Your task to perform on an android device: Open settings on Google Maps Image 0: 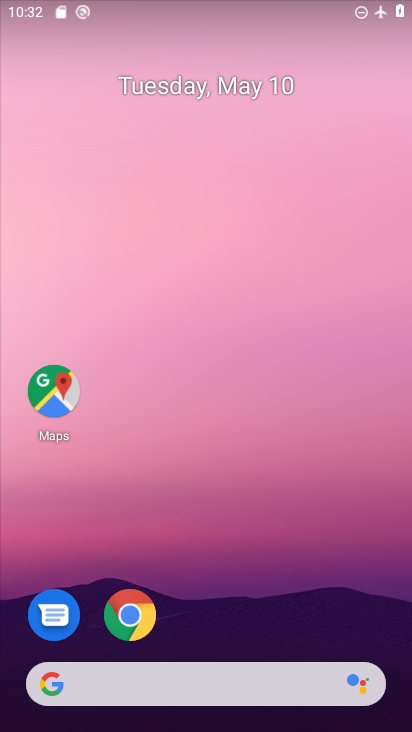
Step 0: drag from (236, 554) to (340, 121)
Your task to perform on an android device: Open settings on Google Maps Image 1: 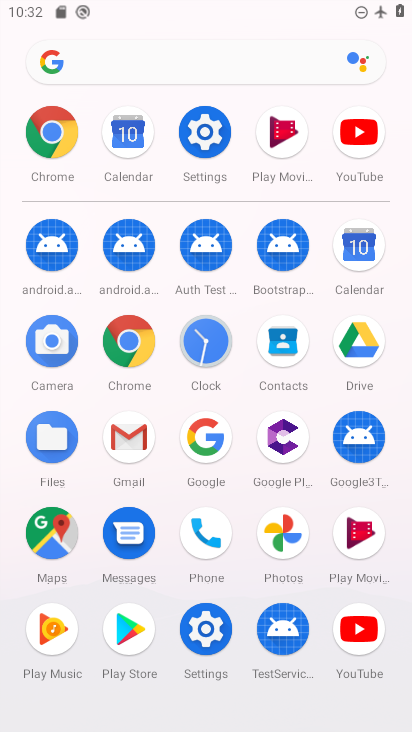
Step 1: click (47, 526)
Your task to perform on an android device: Open settings on Google Maps Image 2: 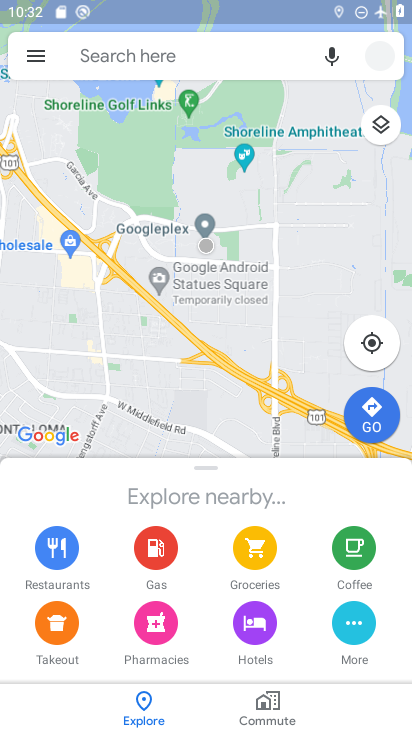
Step 2: drag from (160, 597) to (210, 333)
Your task to perform on an android device: Open settings on Google Maps Image 3: 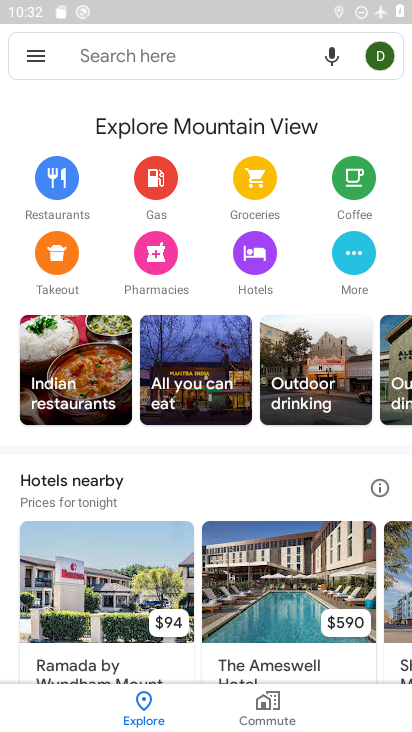
Step 3: drag from (226, 506) to (275, 231)
Your task to perform on an android device: Open settings on Google Maps Image 4: 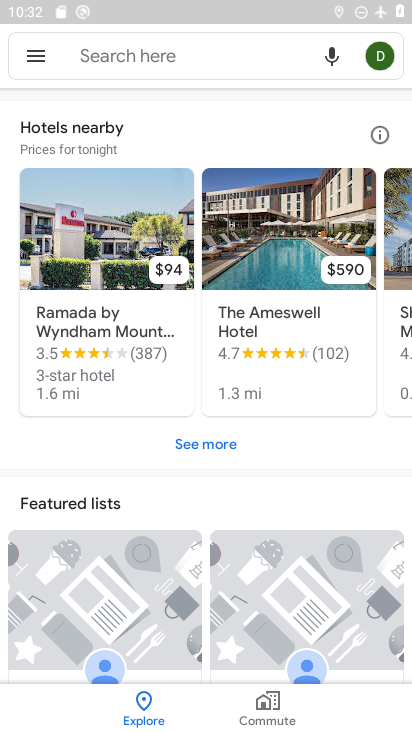
Step 4: drag from (209, 588) to (260, 249)
Your task to perform on an android device: Open settings on Google Maps Image 5: 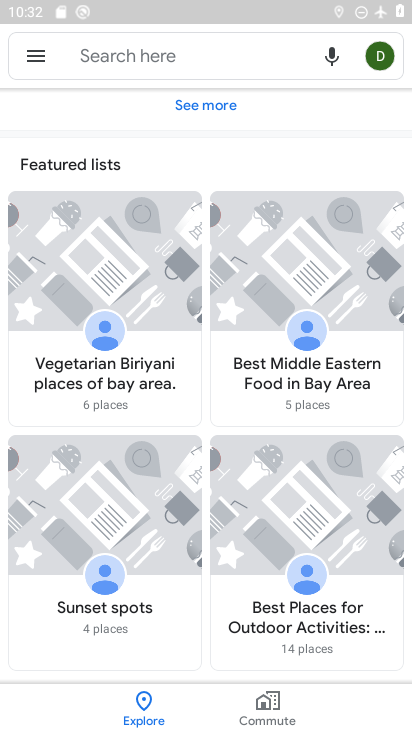
Step 5: drag from (218, 285) to (202, 669)
Your task to perform on an android device: Open settings on Google Maps Image 6: 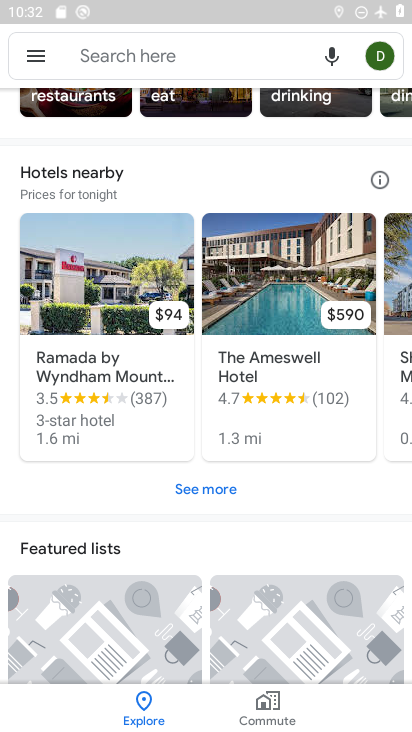
Step 6: drag from (181, 326) to (218, 681)
Your task to perform on an android device: Open settings on Google Maps Image 7: 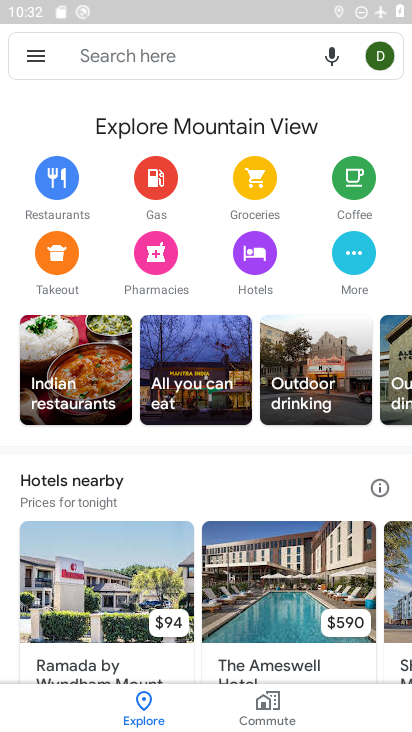
Step 7: drag from (199, 627) to (267, 300)
Your task to perform on an android device: Open settings on Google Maps Image 8: 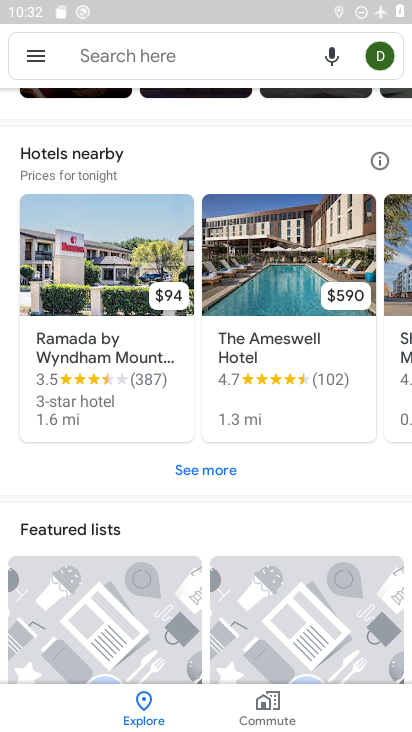
Step 8: drag from (176, 415) to (198, 719)
Your task to perform on an android device: Open settings on Google Maps Image 9: 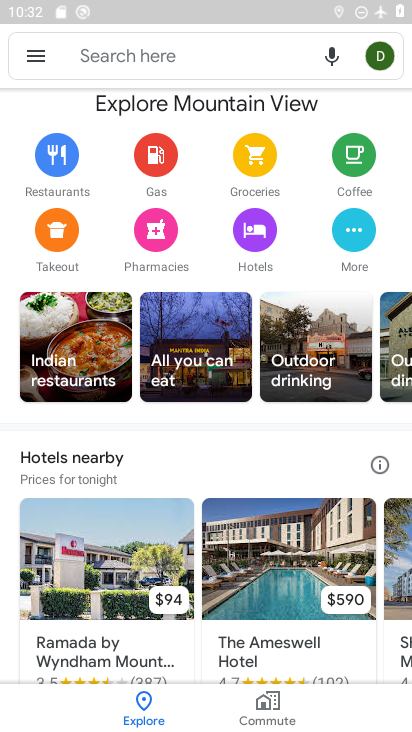
Step 9: drag from (215, 666) to (277, 410)
Your task to perform on an android device: Open settings on Google Maps Image 10: 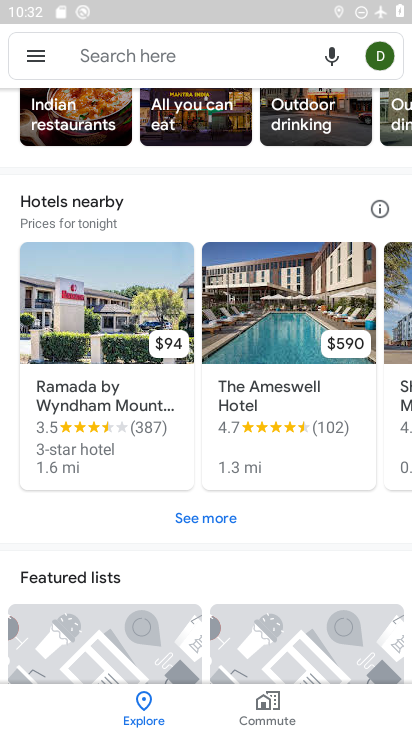
Step 10: click (37, 64)
Your task to perform on an android device: Open settings on Google Maps Image 11: 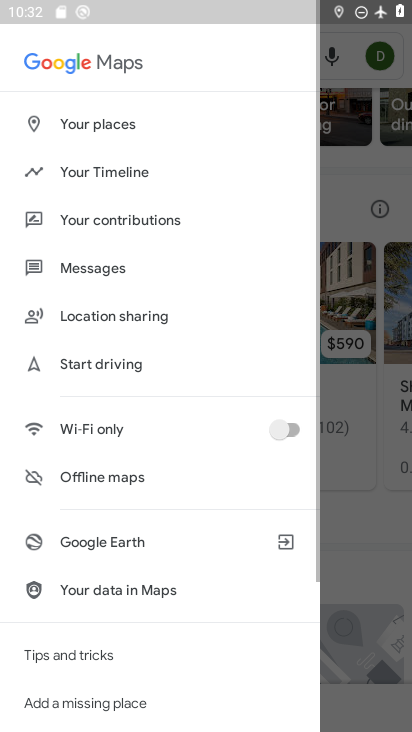
Step 11: drag from (210, 410) to (226, 254)
Your task to perform on an android device: Open settings on Google Maps Image 12: 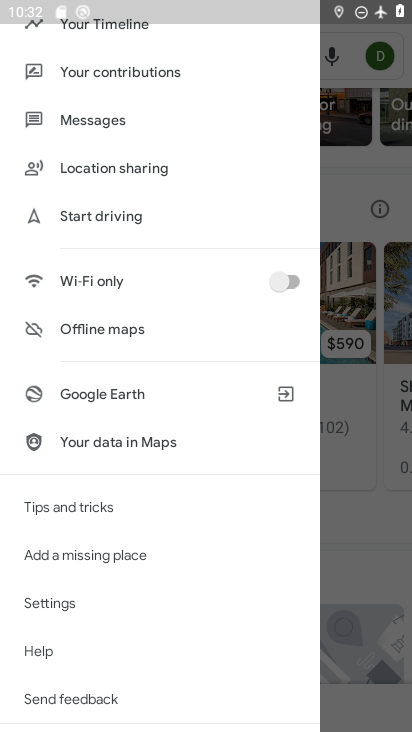
Step 12: click (89, 608)
Your task to perform on an android device: Open settings on Google Maps Image 13: 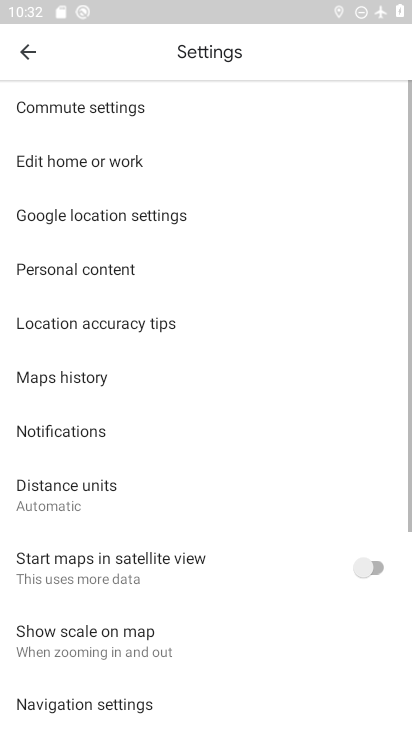
Step 13: task complete